Your task to perform on an android device: Open Youtube and go to the subscriptions tab Image 0: 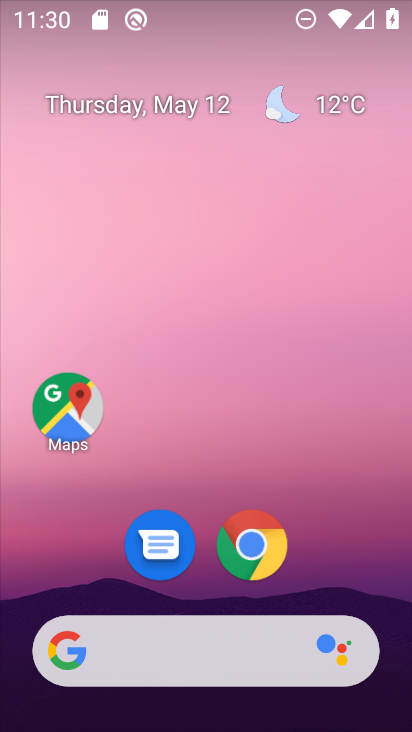
Step 0: drag from (202, 594) to (208, 102)
Your task to perform on an android device: Open Youtube and go to the subscriptions tab Image 1: 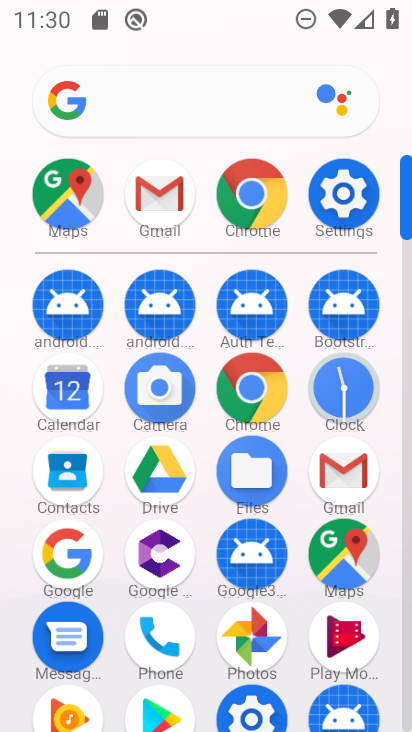
Step 1: drag from (200, 587) to (216, 125)
Your task to perform on an android device: Open Youtube and go to the subscriptions tab Image 2: 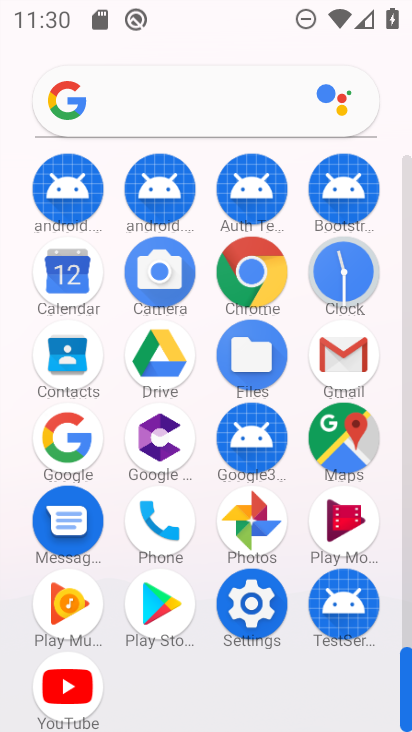
Step 2: click (67, 681)
Your task to perform on an android device: Open Youtube and go to the subscriptions tab Image 3: 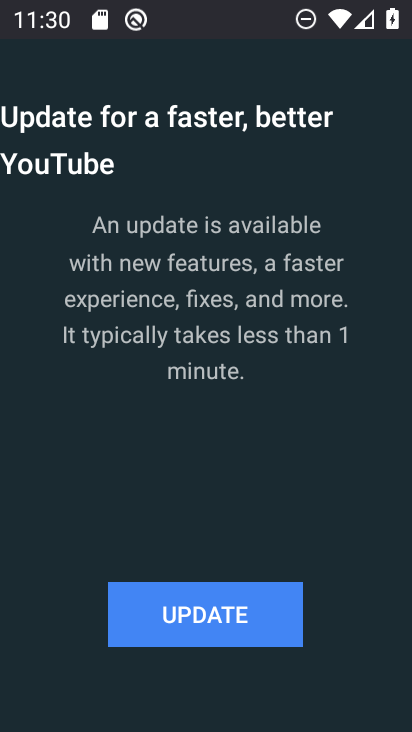
Step 3: click (215, 613)
Your task to perform on an android device: Open Youtube and go to the subscriptions tab Image 4: 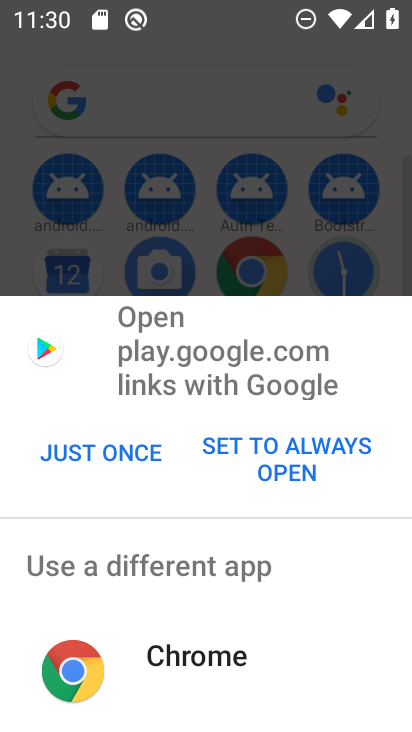
Step 4: click (105, 448)
Your task to perform on an android device: Open Youtube and go to the subscriptions tab Image 5: 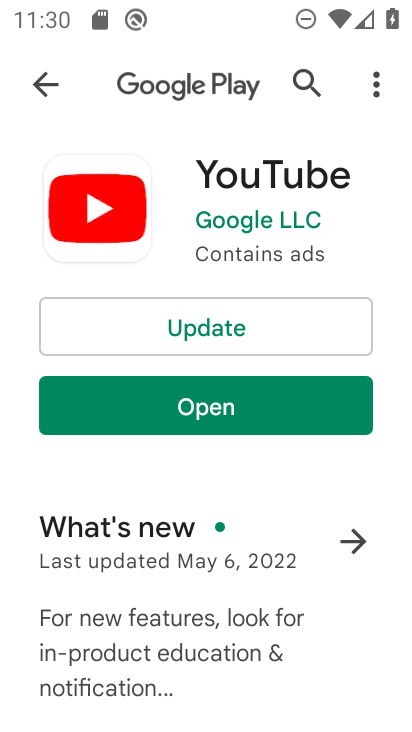
Step 5: click (208, 333)
Your task to perform on an android device: Open Youtube and go to the subscriptions tab Image 6: 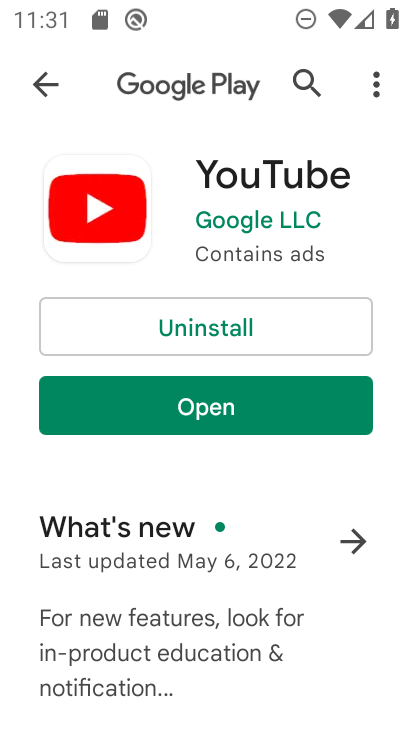
Step 6: click (219, 415)
Your task to perform on an android device: Open Youtube and go to the subscriptions tab Image 7: 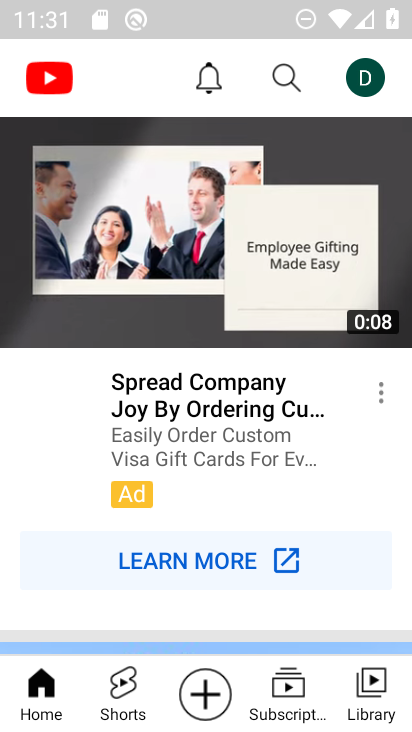
Step 7: click (290, 685)
Your task to perform on an android device: Open Youtube and go to the subscriptions tab Image 8: 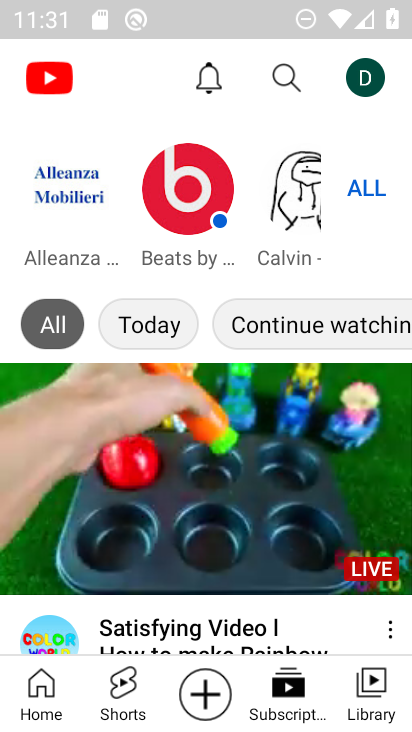
Step 8: task complete